Your task to perform on an android device: open a bookmark in the chrome app Image 0: 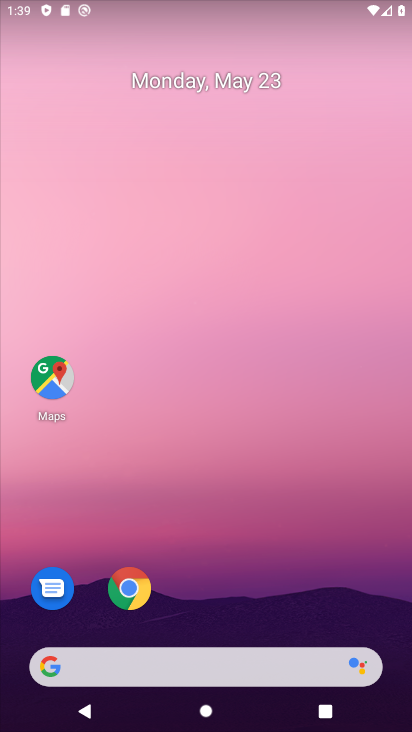
Step 0: click (131, 582)
Your task to perform on an android device: open a bookmark in the chrome app Image 1: 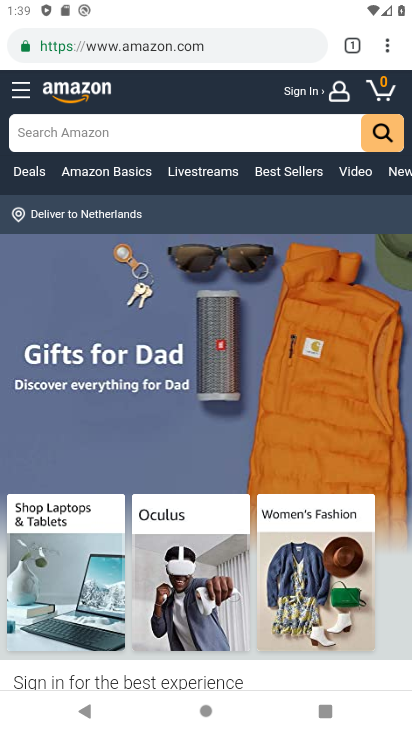
Step 1: click (387, 51)
Your task to perform on an android device: open a bookmark in the chrome app Image 2: 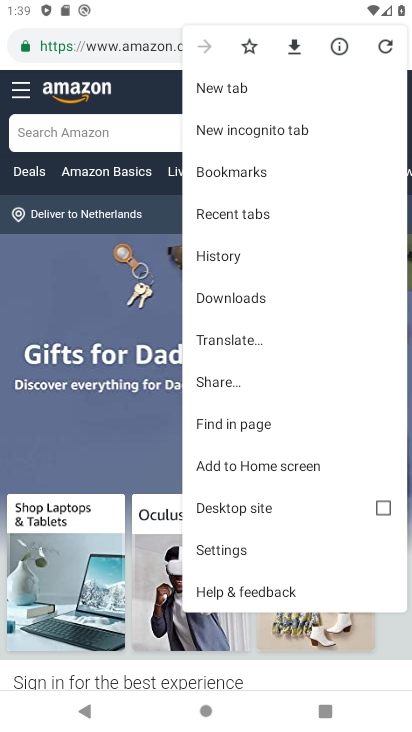
Step 2: click (241, 168)
Your task to perform on an android device: open a bookmark in the chrome app Image 3: 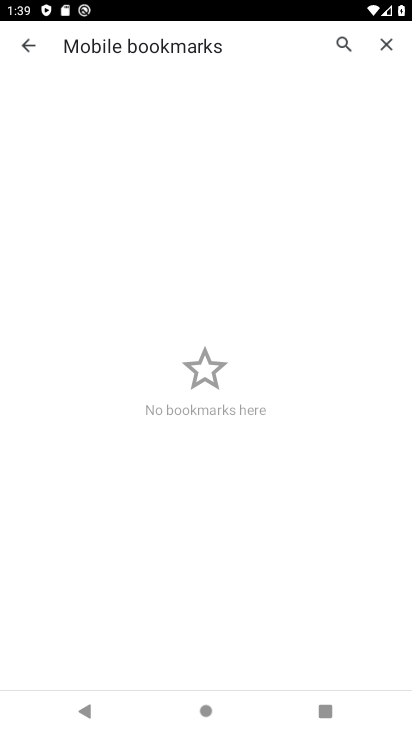
Step 3: task complete